Your task to perform on an android device: Clear the shopping cart on bestbuy.com. Search for energizer triple a on bestbuy.com, select the first entry, add it to the cart, then select checkout. Image 0: 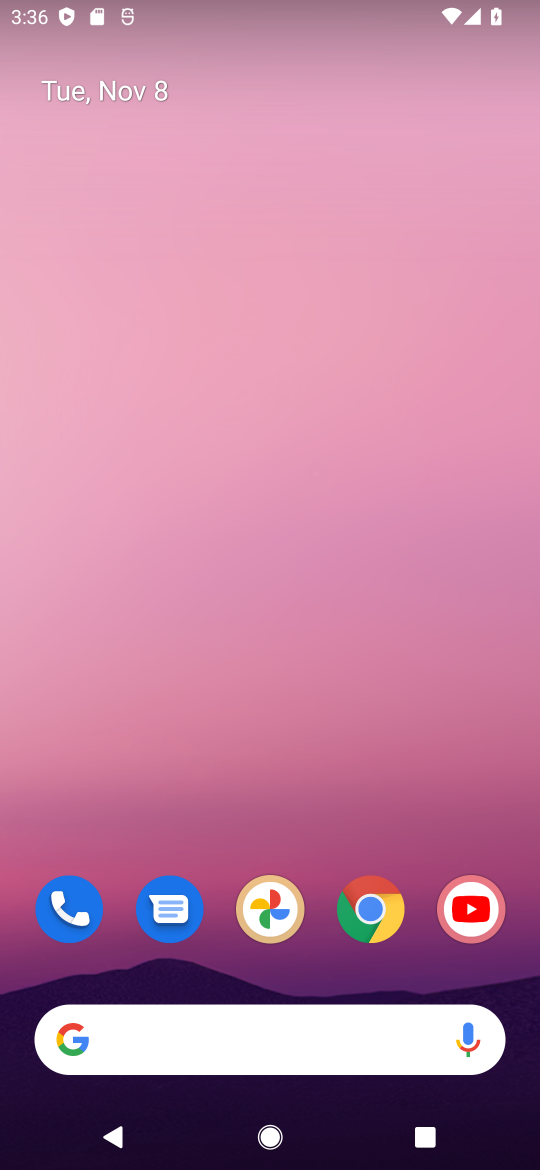
Step 0: click (361, 910)
Your task to perform on an android device: Clear the shopping cart on bestbuy.com. Search for energizer triple a on bestbuy.com, select the first entry, add it to the cart, then select checkout. Image 1: 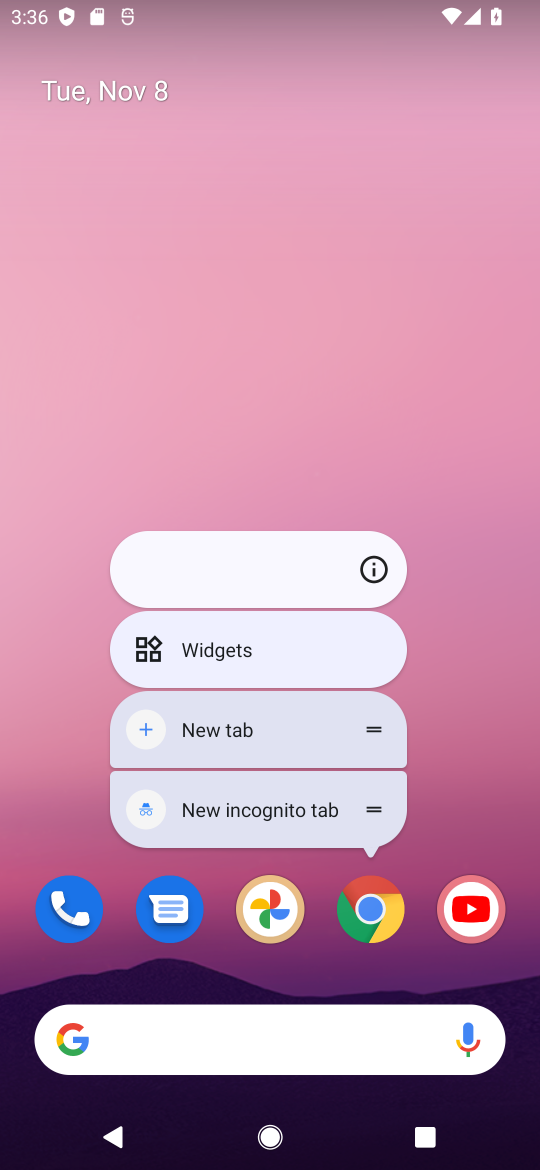
Step 1: click (377, 918)
Your task to perform on an android device: Clear the shopping cart on bestbuy.com. Search for energizer triple a on bestbuy.com, select the first entry, add it to the cart, then select checkout. Image 2: 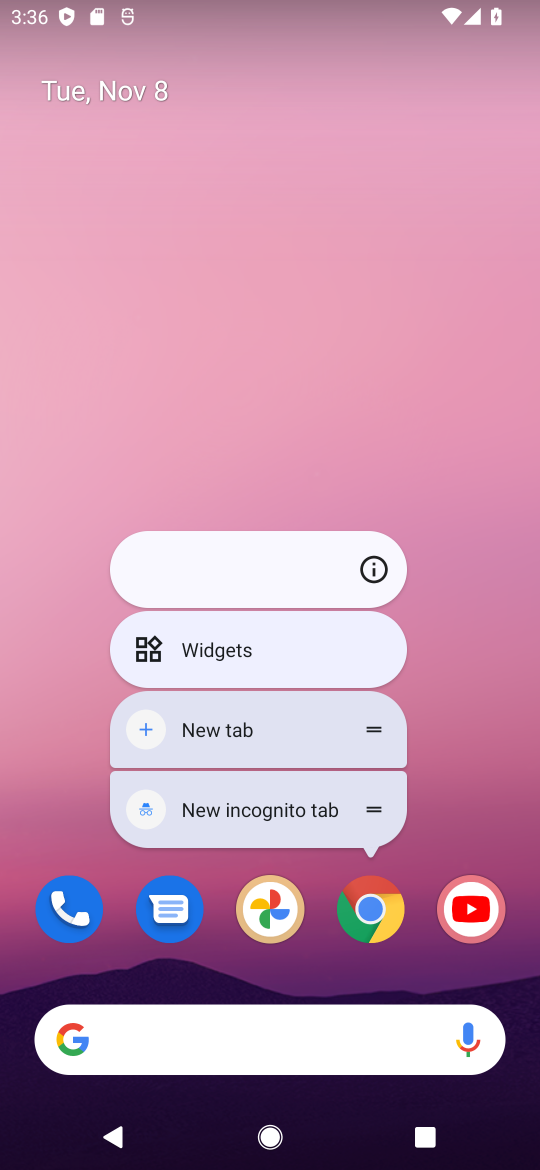
Step 2: click (367, 916)
Your task to perform on an android device: Clear the shopping cart on bestbuy.com. Search for energizer triple a on bestbuy.com, select the first entry, add it to the cart, then select checkout. Image 3: 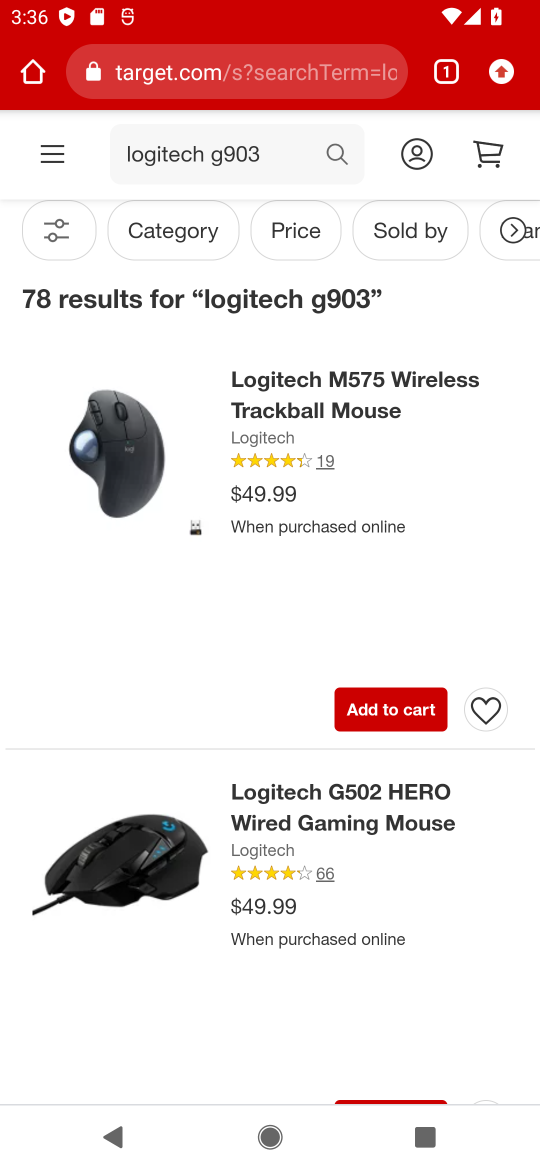
Step 3: click (252, 69)
Your task to perform on an android device: Clear the shopping cart on bestbuy.com. Search for energizer triple a on bestbuy.com, select the first entry, add it to the cart, then select checkout. Image 4: 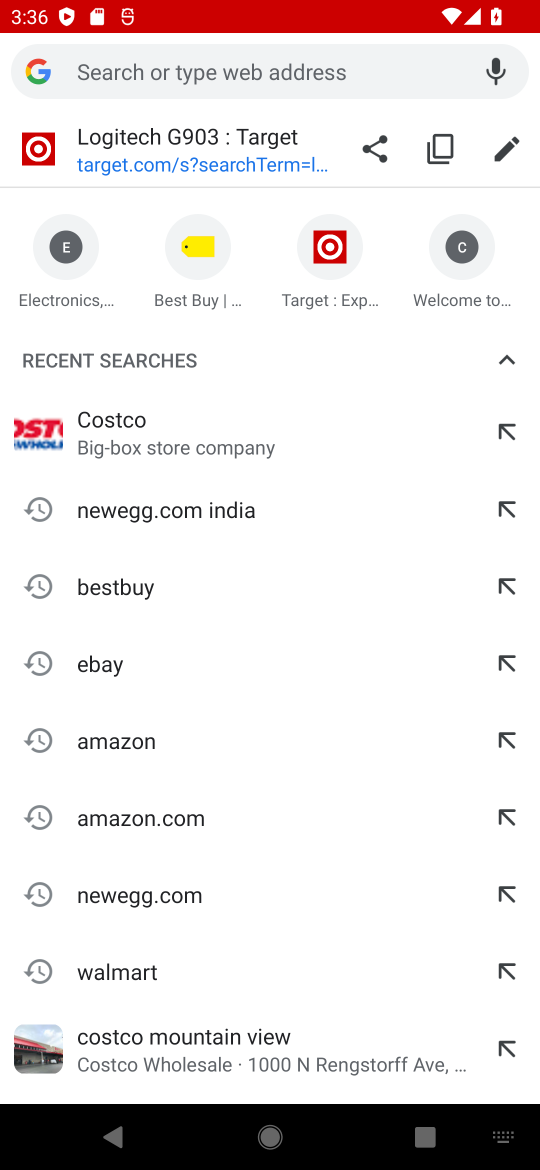
Step 4: click (121, 587)
Your task to perform on an android device: Clear the shopping cart on bestbuy.com. Search for energizer triple a on bestbuy.com, select the first entry, add it to the cart, then select checkout. Image 5: 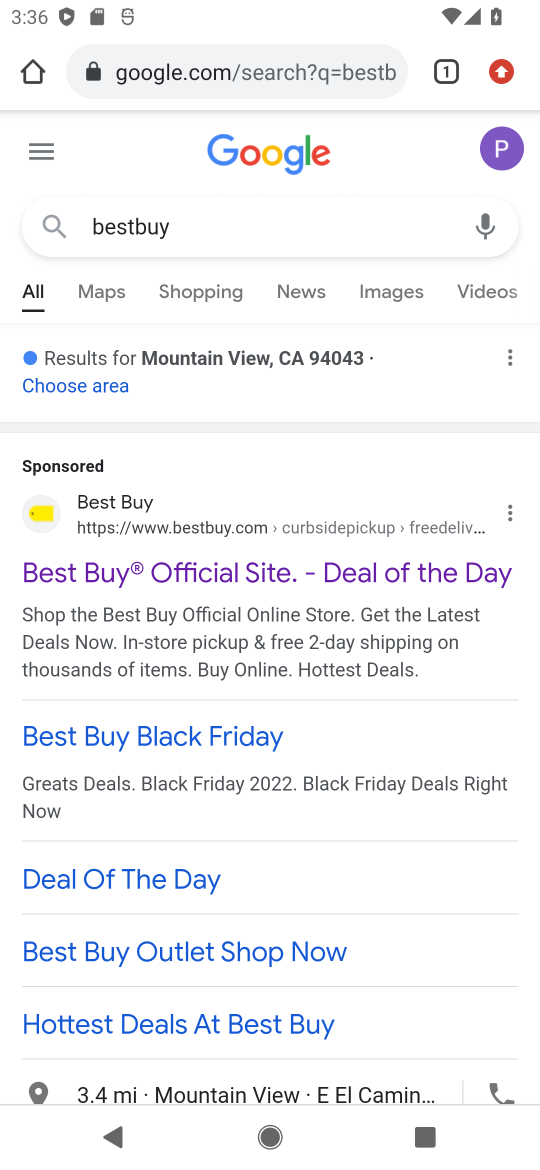
Step 5: click (109, 568)
Your task to perform on an android device: Clear the shopping cart on bestbuy.com. Search for energizer triple a on bestbuy.com, select the first entry, add it to the cart, then select checkout. Image 6: 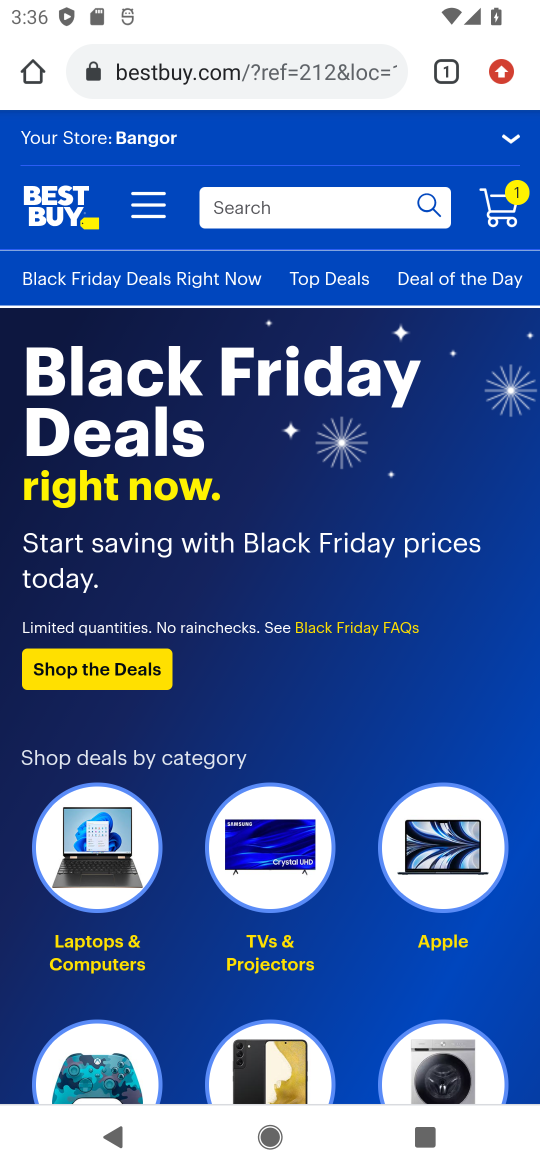
Step 6: click (260, 203)
Your task to perform on an android device: Clear the shopping cart on bestbuy.com. Search for energizer triple a on bestbuy.com, select the first entry, add it to the cart, then select checkout. Image 7: 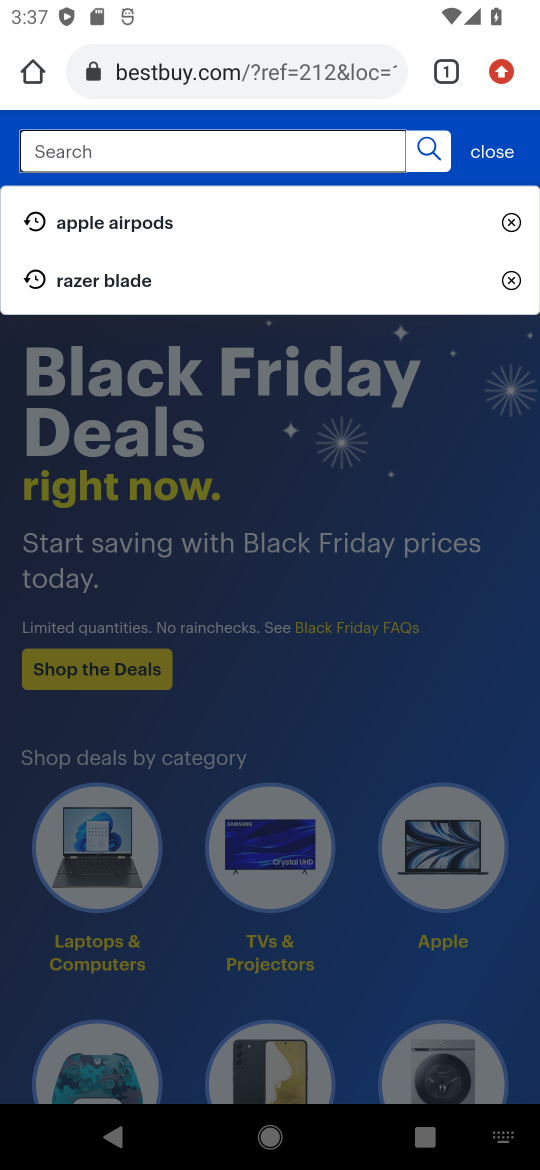
Step 7: type "energizer triple a "
Your task to perform on an android device: Clear the shopping cart on bestbuy.com. Search for energizer triple a on bestbuy.com, select the first entry, add it to the cart, then select checkout. Image 8: 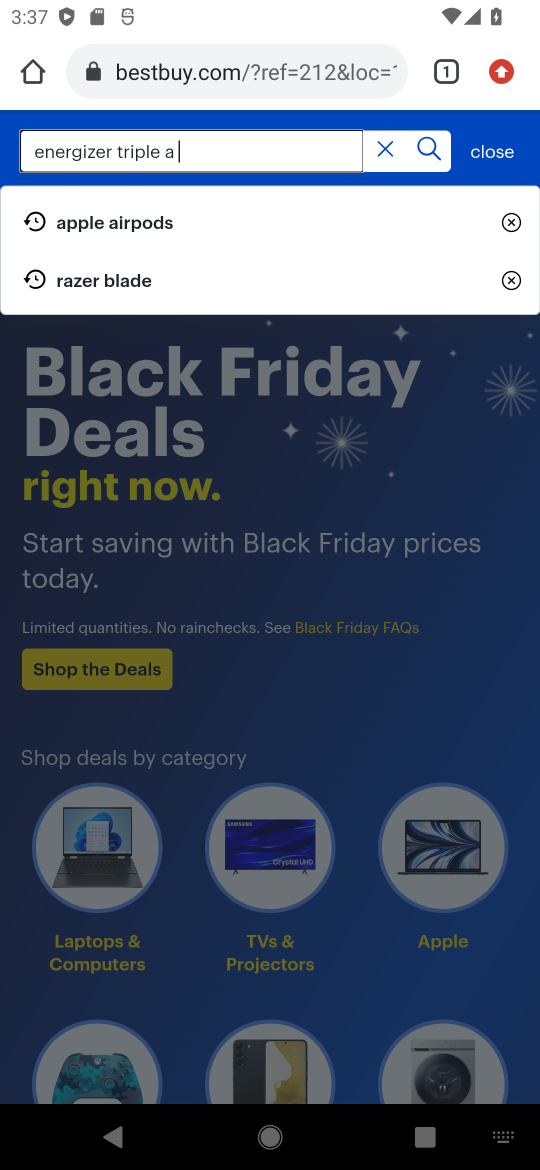
Step 8: press enter
Your task to perform on an android device: Clear the shopping cart on bestbuy.com. Search for energizer triple a on bestbuy.com, select the first entry, add it to the cart, then select checkout. Image 9: 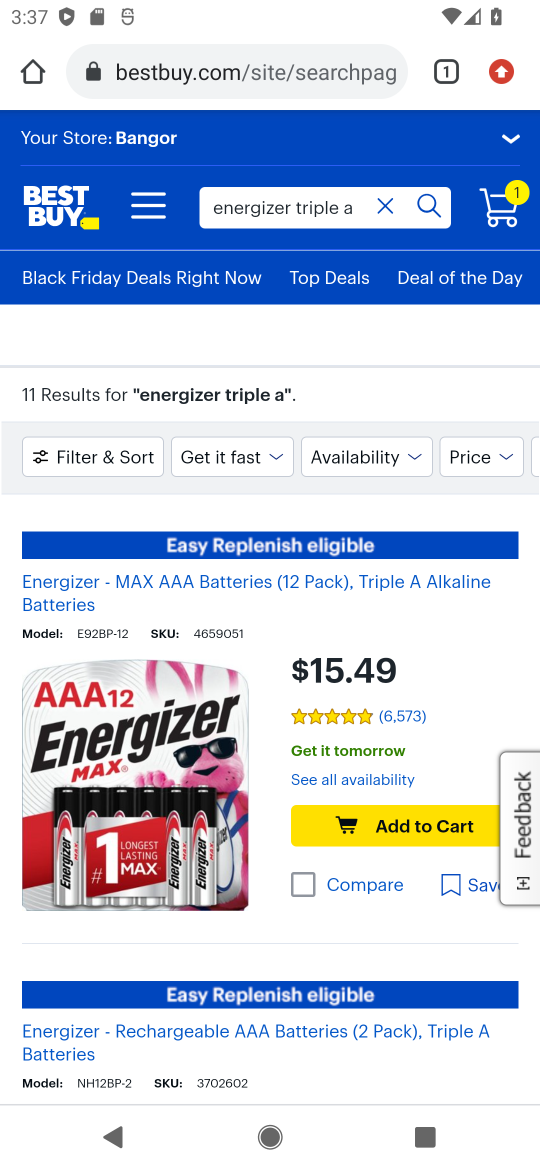
Step 9: click (426, 822)
Your task to perform on an android device: Clear the shopping cart on bestbuy.com. Search for energizer triple a on bestbuy.com, select the first entry, add it to the cart, then select checkout. Image 10: 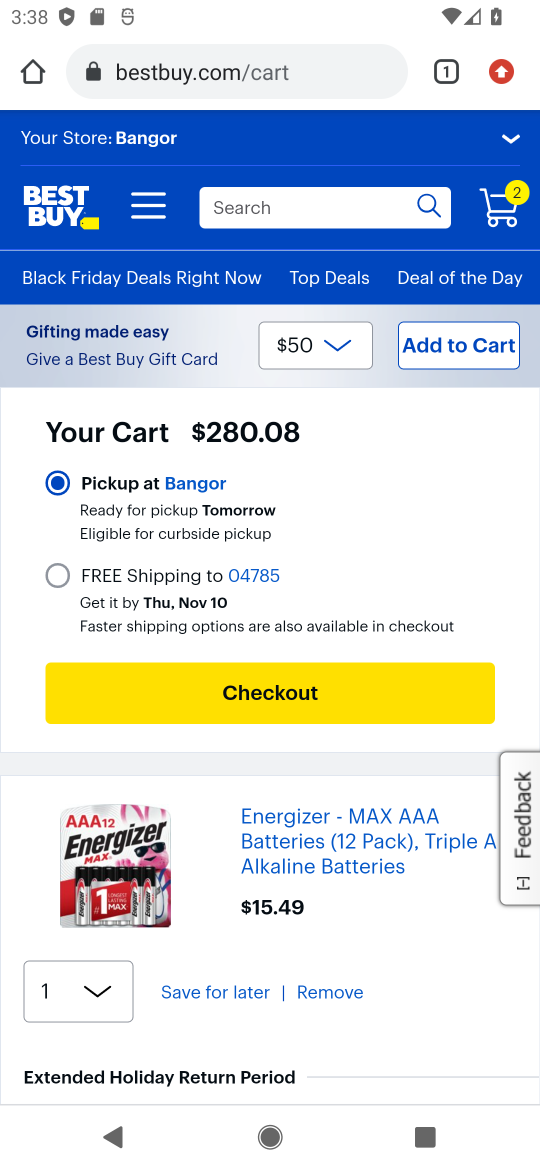
Step 10: drag from (279, 852) to (496, 248)
Your task to perform on an android device: Clear the shopping cart on bestbuy.com. Search for energizer triple a on bestbuy.com, select the first entry, add it to the cart, then select checkout. Image 11: 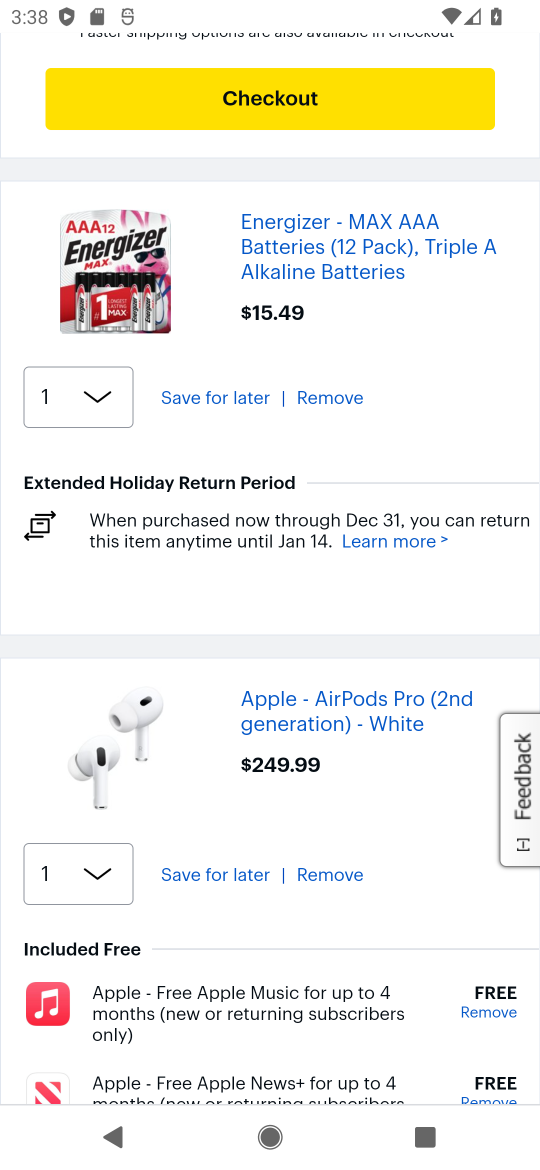
Step 11: click (319, 873)
Your task to perform on an android device: Clear the shopping cart on bestbuy.com. Search for energizer triple a on bestbuy.com, select the first entry, add it to the cart, then select checkout. Image 12: 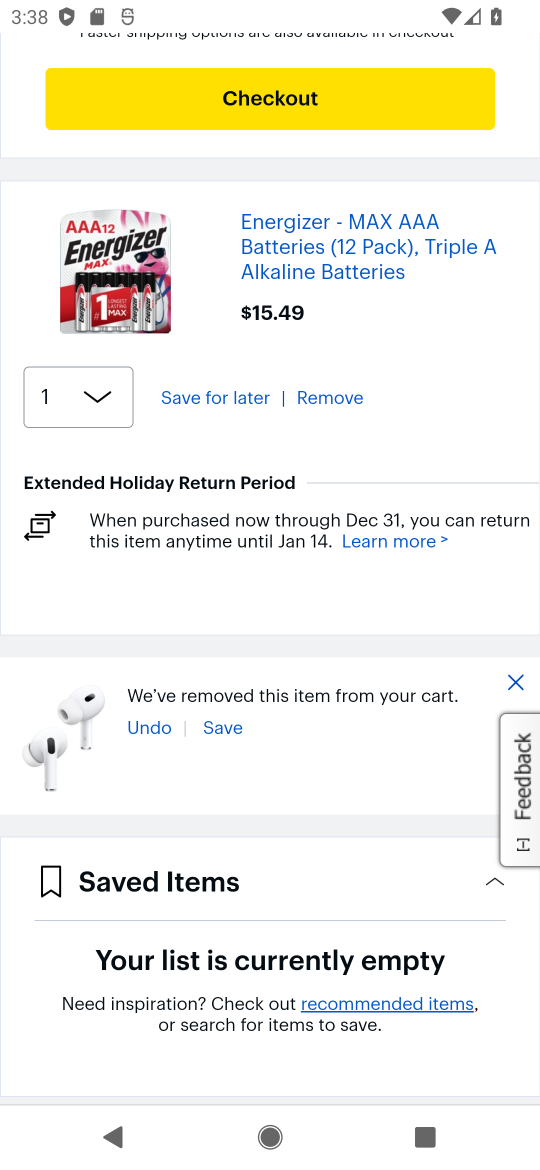
Step 12: click (285, 98)
Your task to perform on an android device: Clear the shopping cart on bestbuy.com. Search for energizer triple a on bestbuy.com, select the first entry, add it to the cart, then select checkout. Image 13: 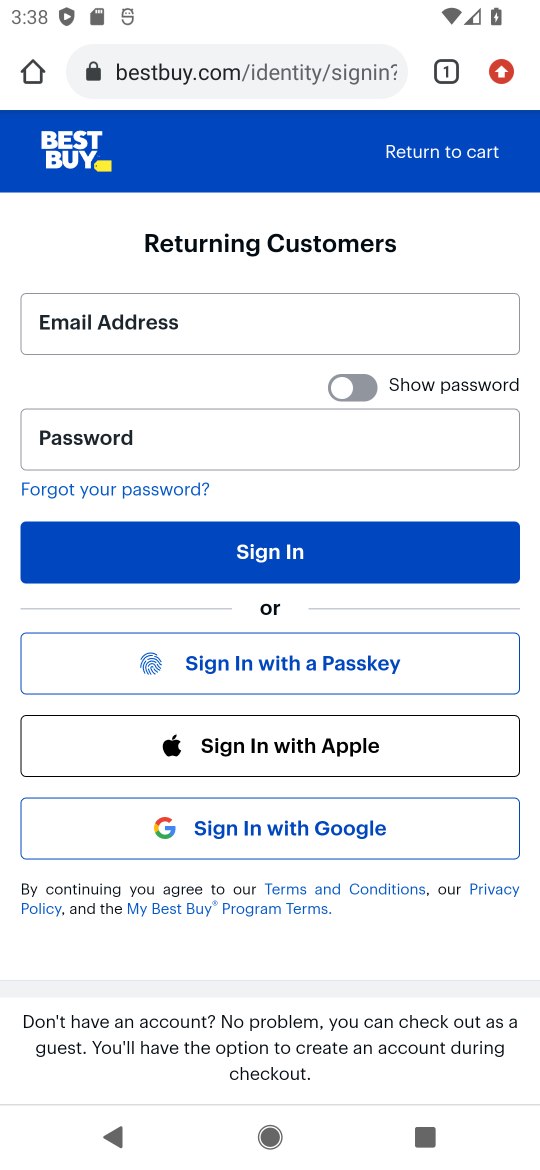
Step 13: task complete